Your task to perform on an android device: turn on the 12-hour format for clock Image 0: 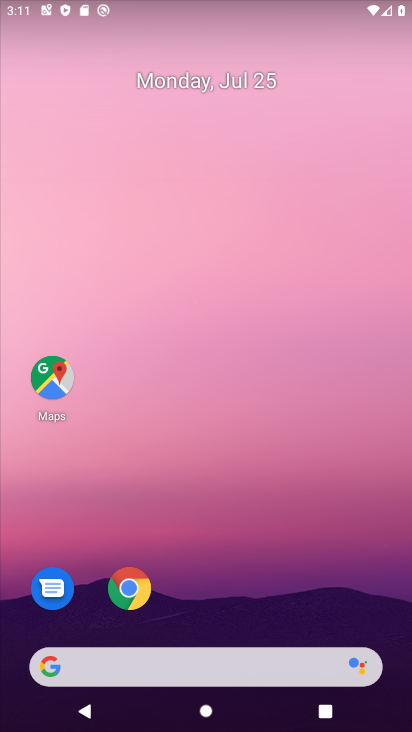
Step 0: drag from (171, 580) to (175, 79)
Your task to perform on an android device: turn on the 12-hour format for clock Image 1: 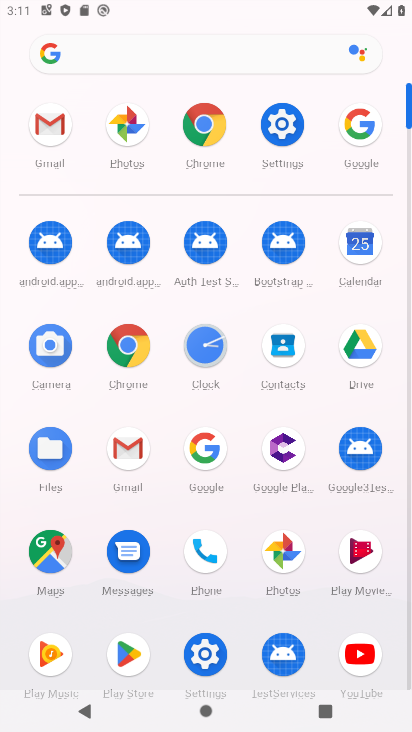
Step 1: click (210, 330)
Your task to perform on an android device: turn on the 12-hour format for clock Image 2: 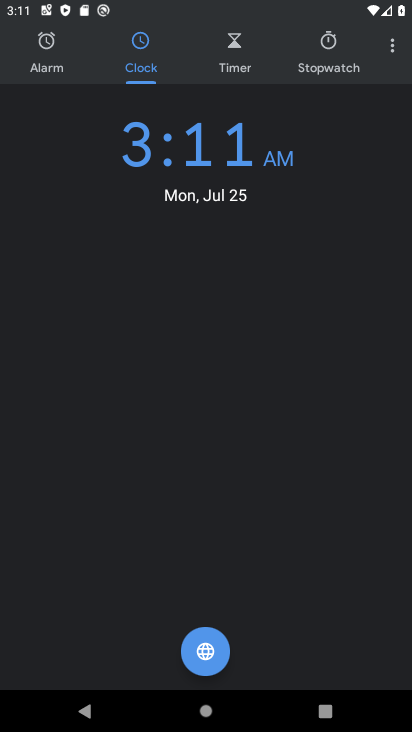
Step 2: click (385, 47)
Your task to perform on an android device: turn on the 12-hour format for clock Image 3: 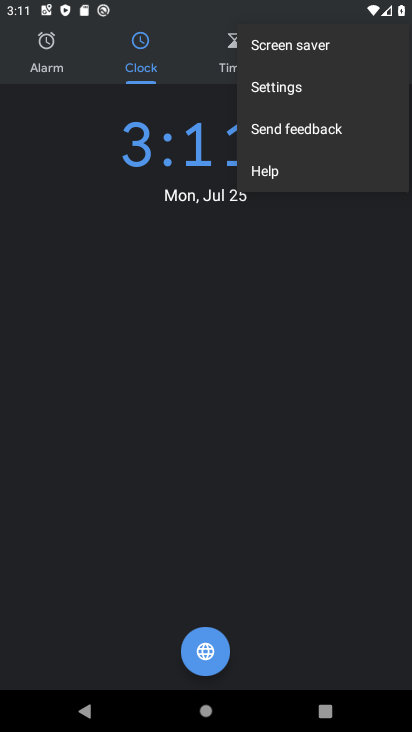
Step 3: click (302, 87)
Your task to perform on an android device: turn on the 12-hour format for clock Image 4: 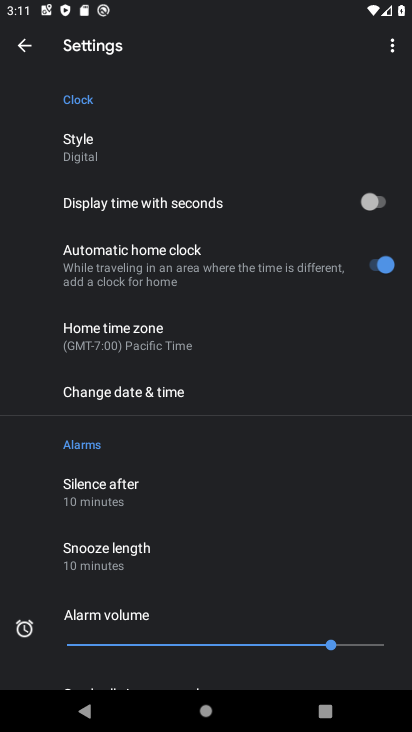
Step 4: click (136, 394)
Your task to perform on an android device: turn on the 12-hour format for clock Image 5: 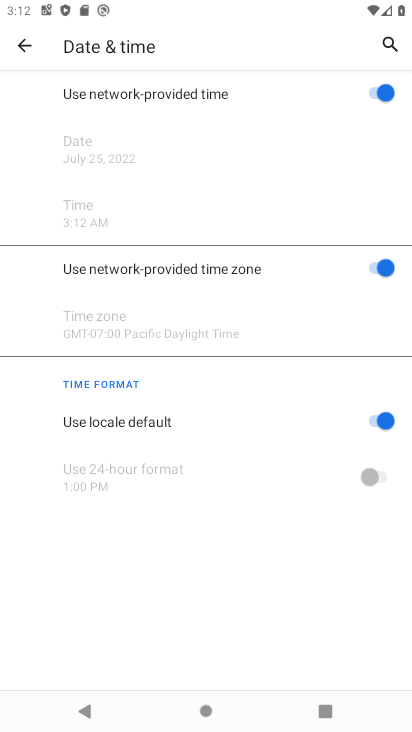
Step 5: task complete